Your task to perform on an android device: Go to internet settings Image 0: 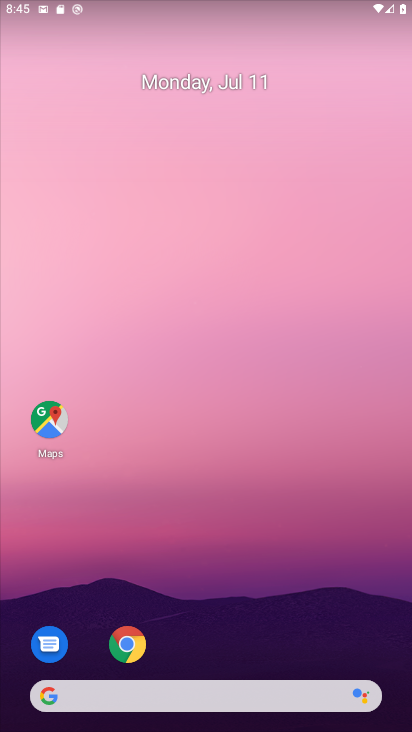
Step 0: drag from (210, 677) to (282, 179)
Your task to perform on an android device: Go to internet settings Image 1: 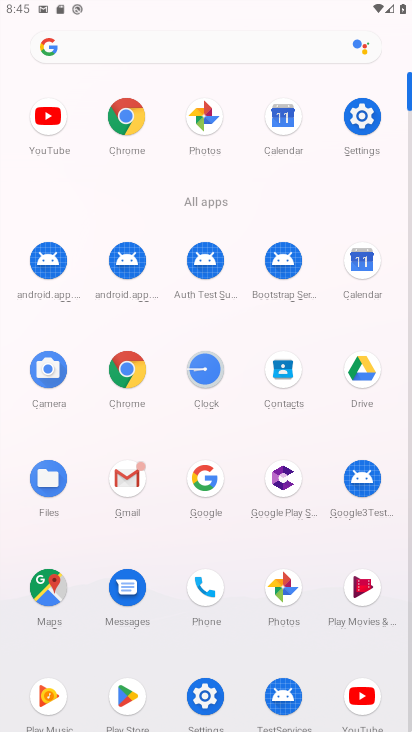
Step 1: click (355, 112)
Your task to perform on an android device: Go to internet settings Image 2: 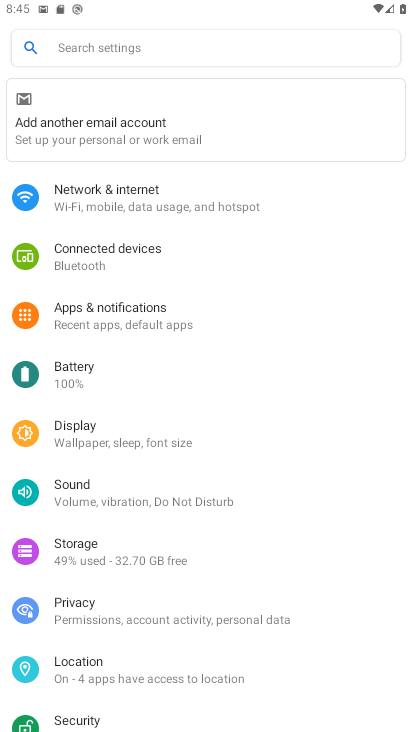
Step 2: click (154, 192)
Your task to perform on an android device: Go to internet settings Image 3: 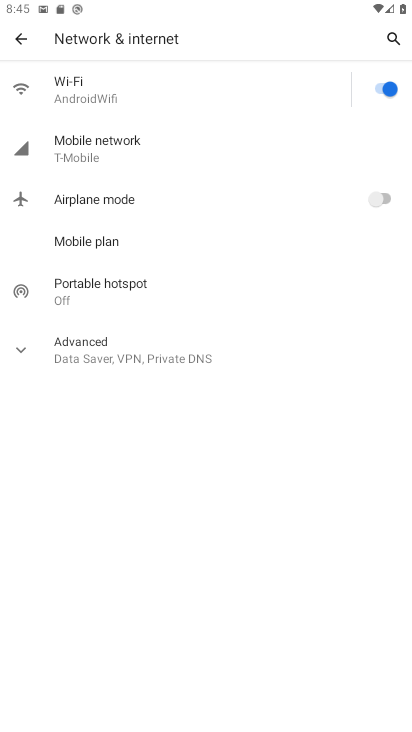
Step 3: click (172, 349)
Your task to perform on an android device: Go to internet settings Image 4: 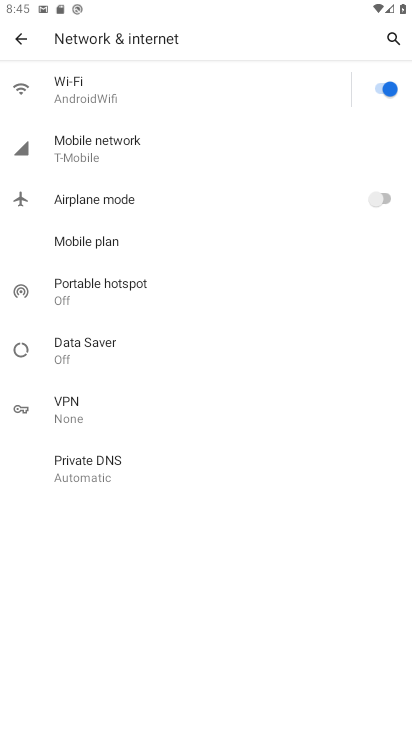
Step 4: task complete